Your task to perform on an android device: check out phone information Image 0: 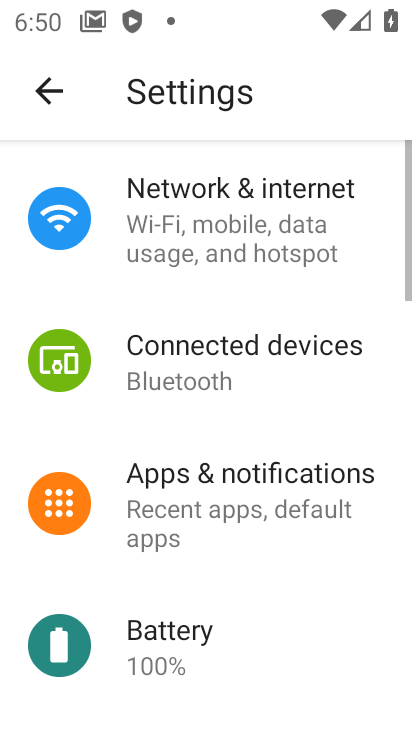
Step 0: drag from (158, 606) to (265, 180)
Your task to perform on an android device: check out phone information Image 1: 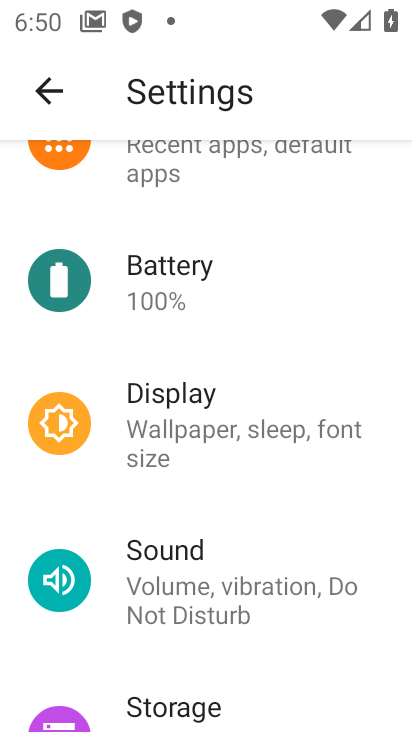
Step 1: click (193, 419)
Your task to perform on an android device: check out phone information Image 2: 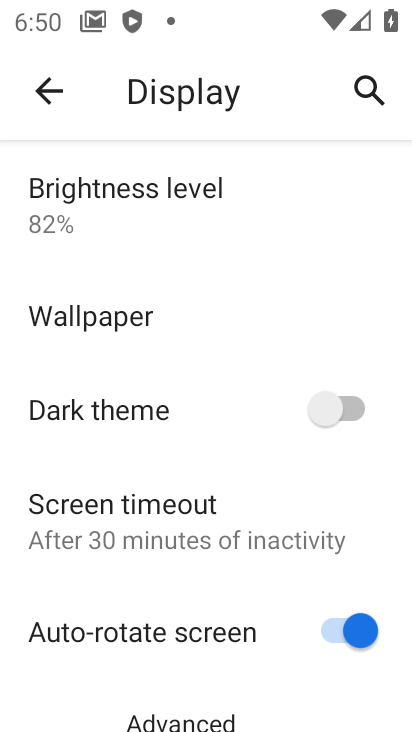
Step 2: drag from (157, 466) to (233, 135)
Your task to perform on an android device: check out phone information Image 3: 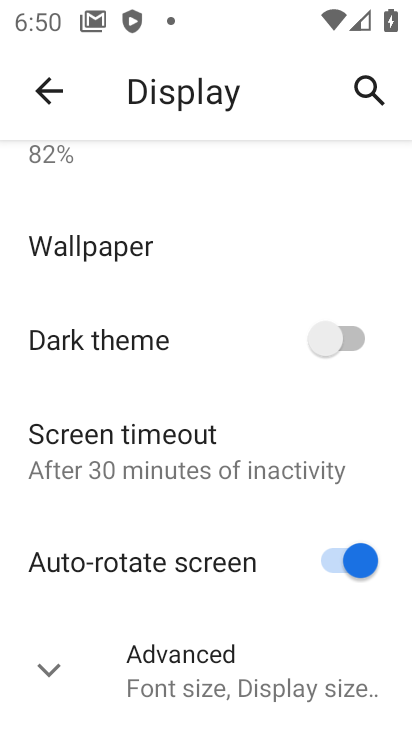
Step 3: drag from (190, 511) to (226, 358)
Your task to perform on an android device: check out phone information Image 4: 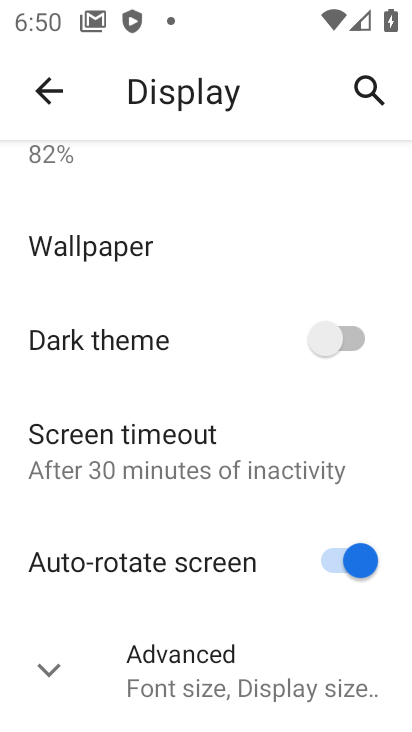
Step 4: click (37, 660)
Your task to perform on an android device: check out phone information Image 5: 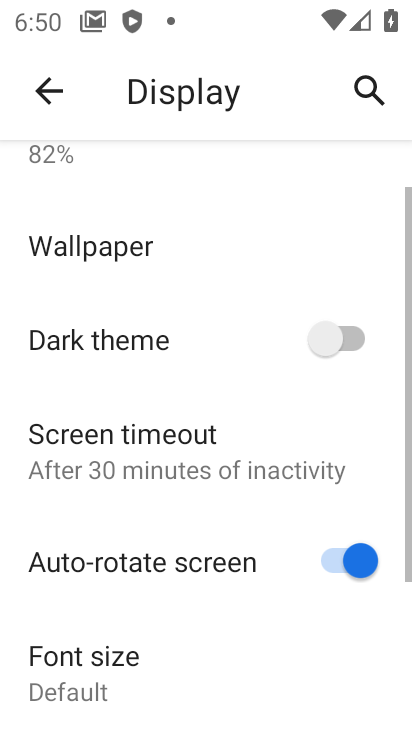
Step 5: task complete